Your task to perform on an android device: Do I have any events today? Image 0: 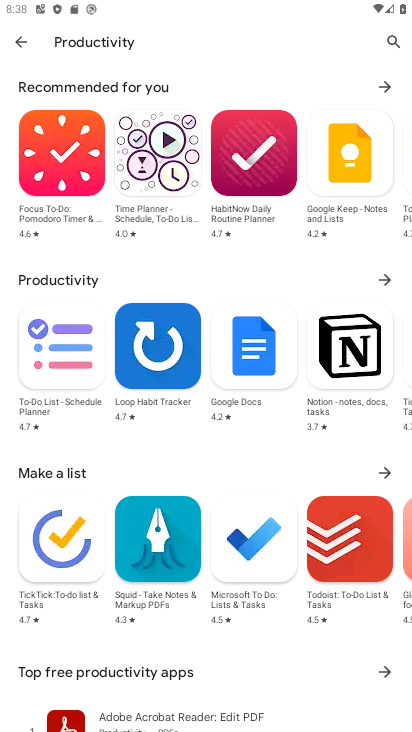
Step 0: press home button
Your task to perform on an android device: Do I have any events today? Image 1: 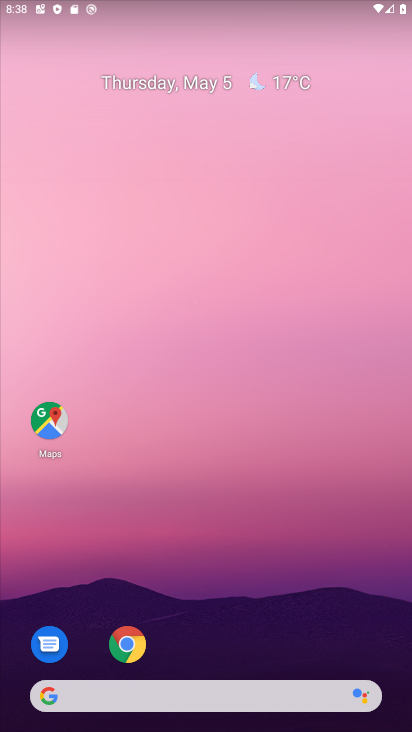
Step 1: drag from (263, 609) to (408, 527)
Your task to perform on an android device: Do I have any events today? Image 2: 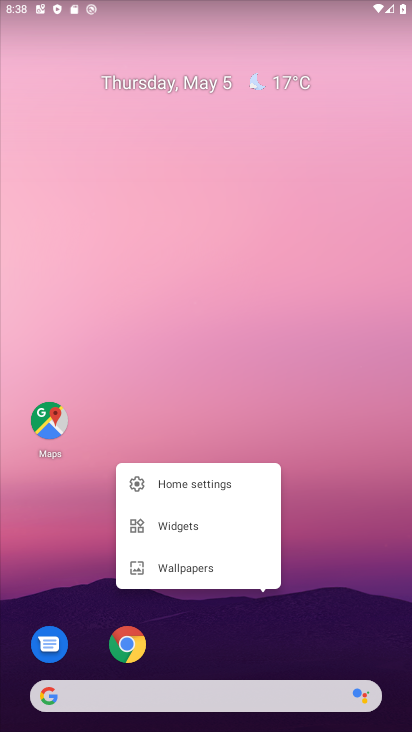
Step 2: drag from (348, 624) to (310, 128)
Your task to perform on an android device: Do I have any events today? Image 3: 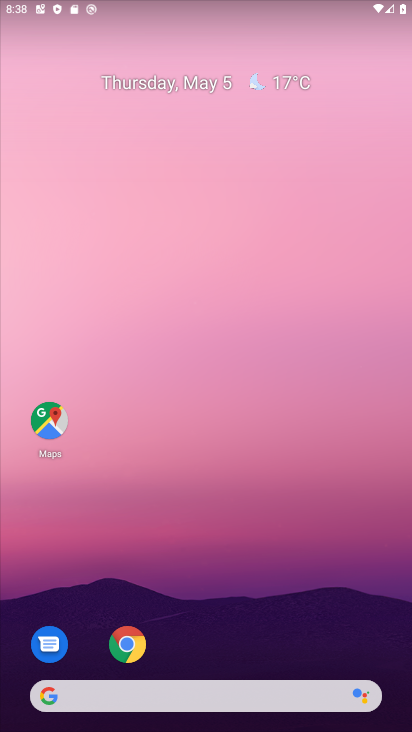
Step 3: drag from (202, 648) to (180, 163)
Your task to perform on an android device: Do I have any events today? Image 4: 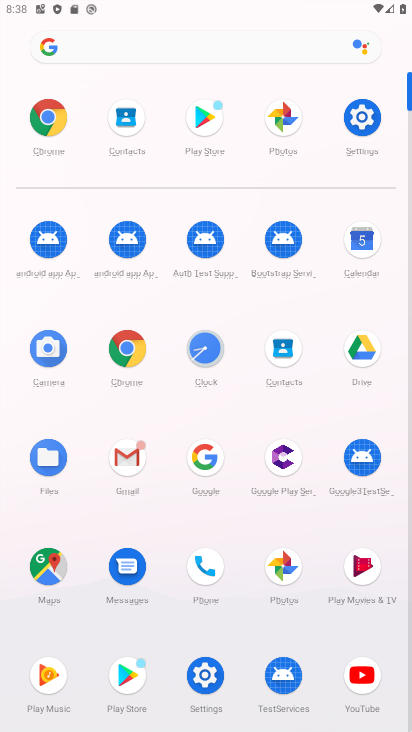
Step 4: click (359, 262)
Your task to perform on an android device: Do I have any events today? Image 5: 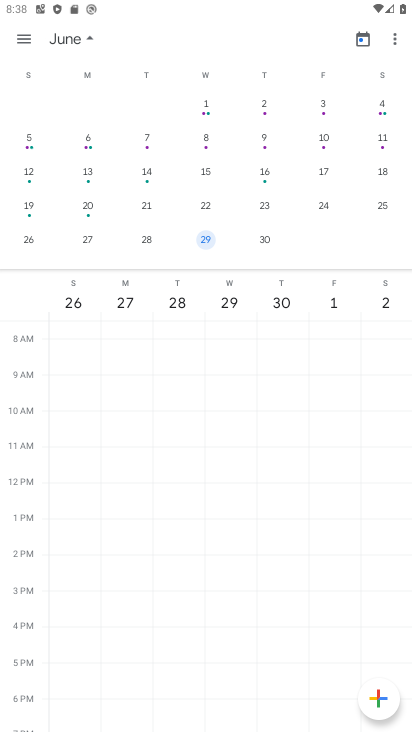
Step 5: click (24, 41)
Your task to perform on an android device: Do I have any events today? Image 6: 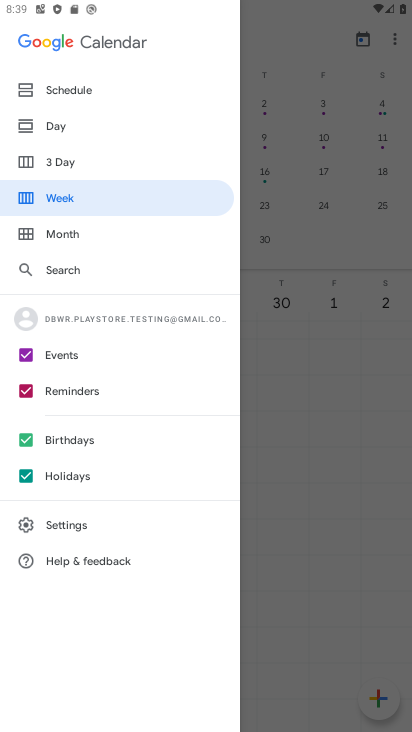
Step 6: click (52, 86)
Your task to perform on an android device: Do I have any events today? Image 7: 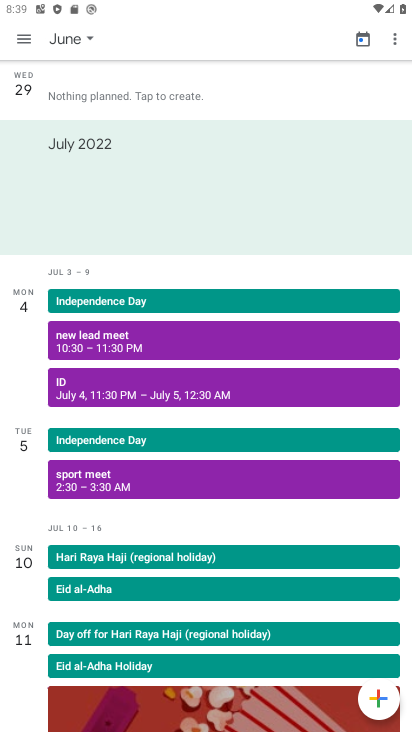
Step 7: click (24, 36)
Your task to perform on an android device: Do I have any events today? Image 8: 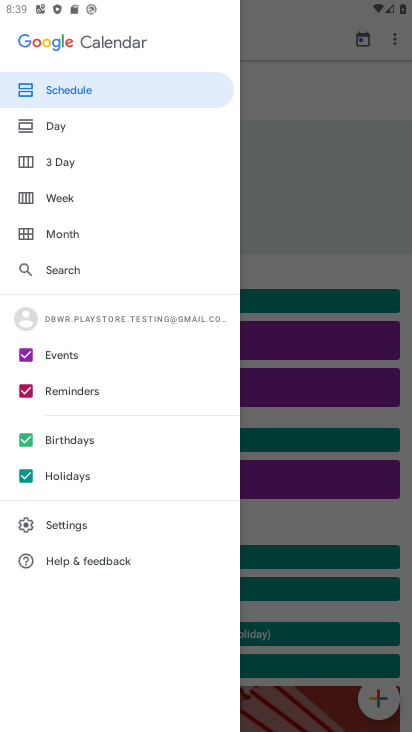
Step 8: click (31, 476)
Your task to perform on an android device: Do I have any events today? Image 9: 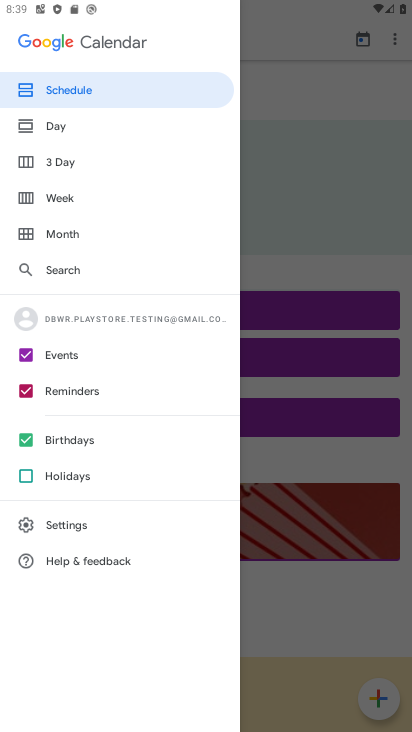
Step 9: click (23, 444)
Your task to perform on an android device: Do I have any events today? Image 10: 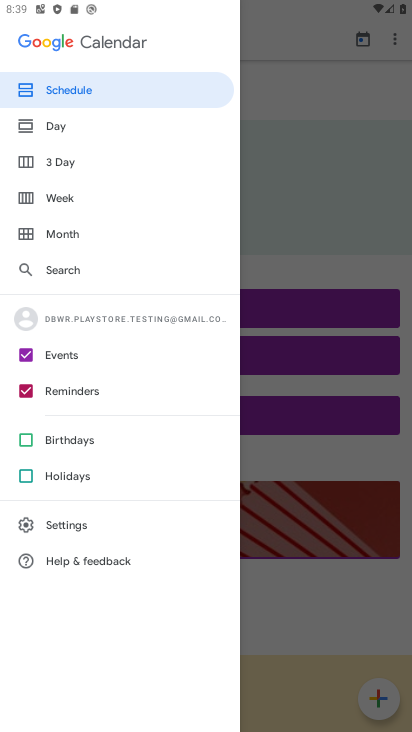
Step 10: click (24, 389)
Your task to perform on an android device: Do I have any events today? Image 11: 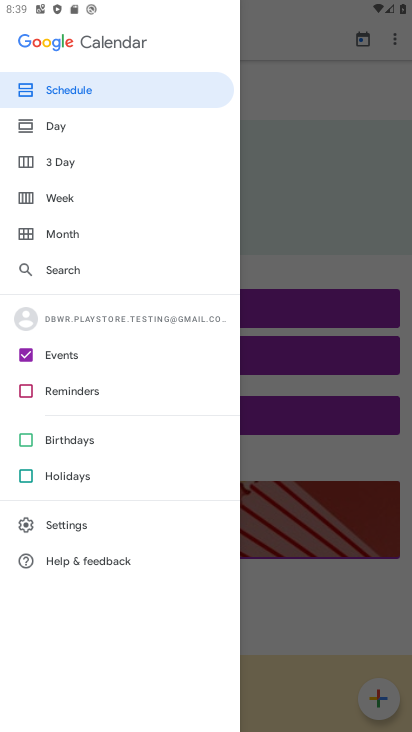
Step 11: click (115, 88)
Your task to perform on an android device: Do I have any events today? Image 12: 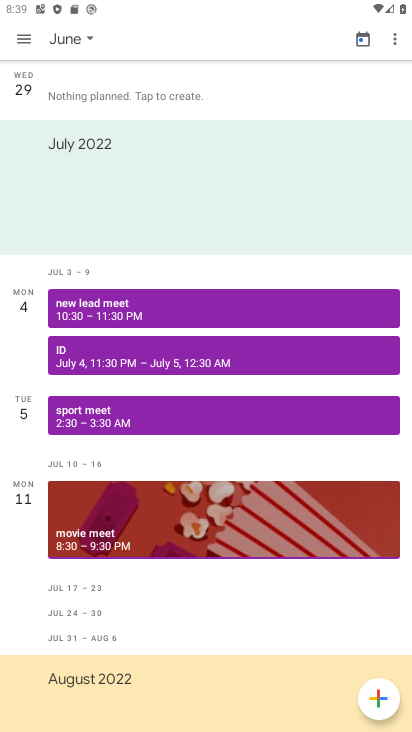
Step 12: task complete